Your task to perform on an android device: Go to settings Image 0: 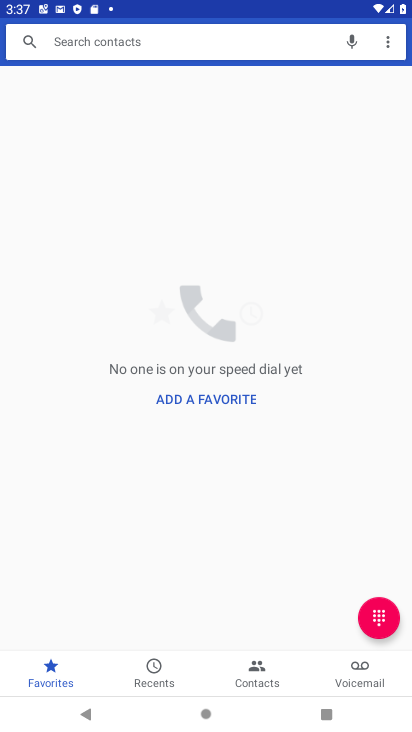
Step 0: press home button
Your task to perform on an android device: Go to settings Image 1: 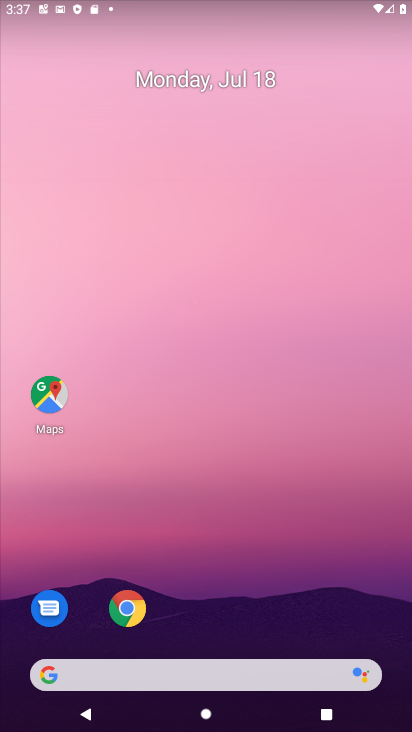
Step 1: drag from (253, 265) to (264, 164)
Your task to perform on an android device: Go to settings Image 2: 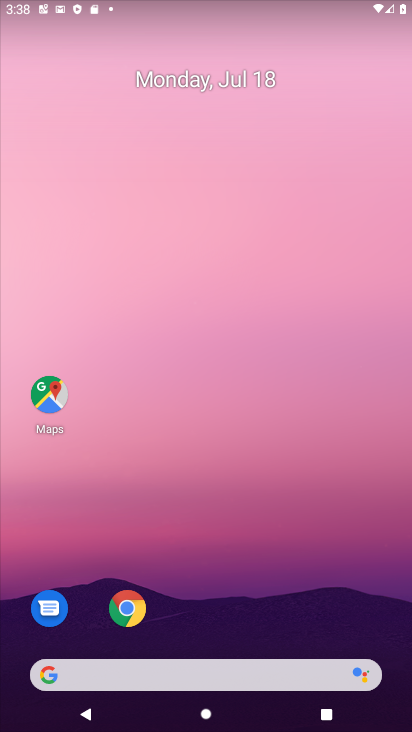
Step 2: drag from (217, 650) to (224, 162)
Your task to perform on an android device: Go to settings Image 3: 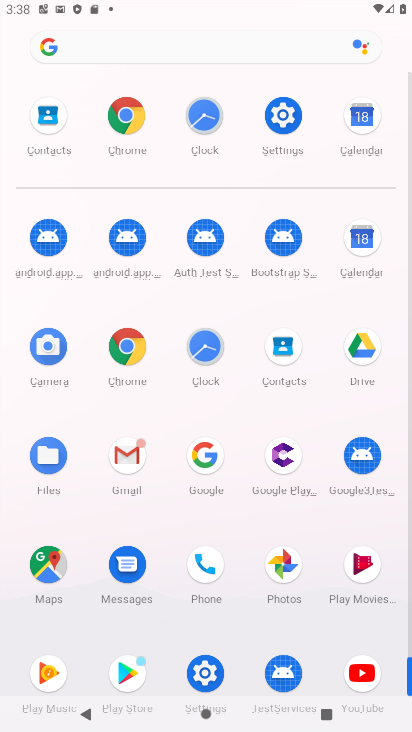
Step 3: click (280, 116)
Your task to perform on an android device: Go to settings Image 4: 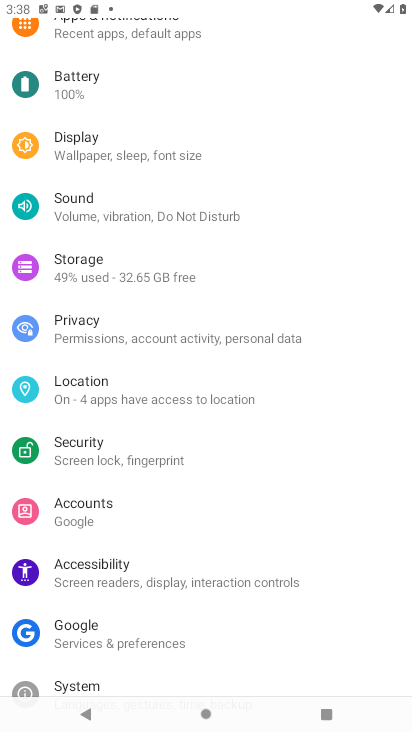
Step 4: task complete